Your task to perform on an android device: open app "Google Play Games" (install if not already installed) Image 0: 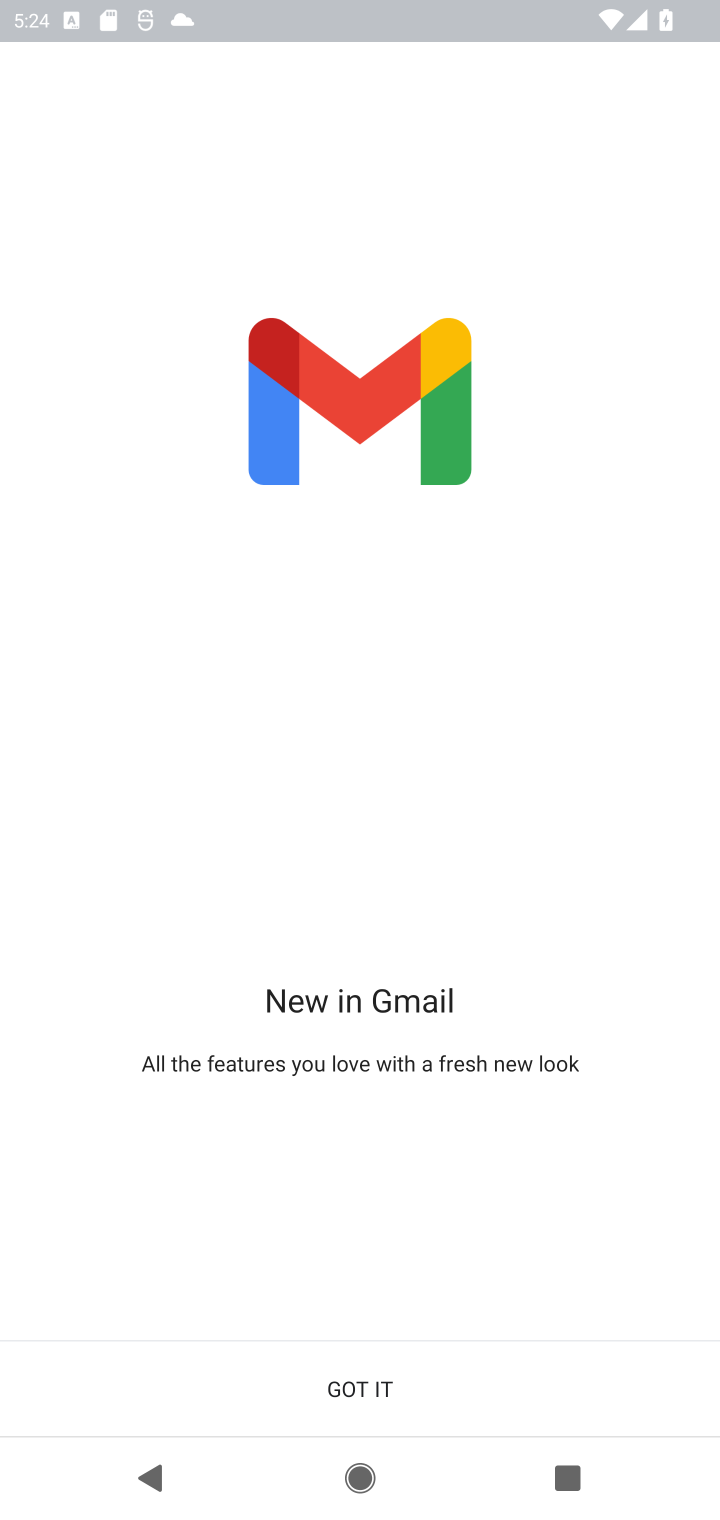
Step 0: press home button
Your task to perform on an android device: open app "Google Play Games" (install if not already installed) Image 1: 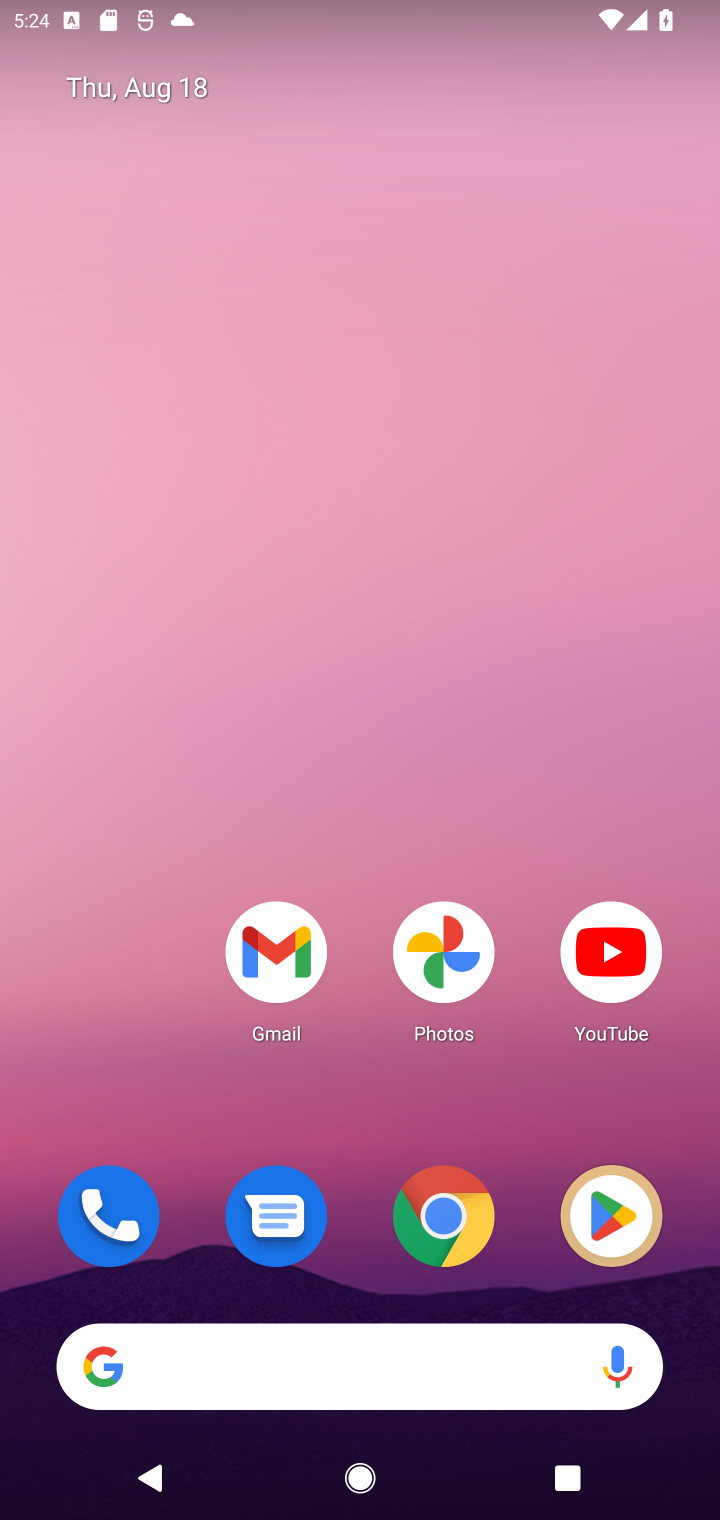
Step 1: click (576, 1182)
Your task to perform on an android device: open app "Google Play Games" (install if not already installed) Image 2: 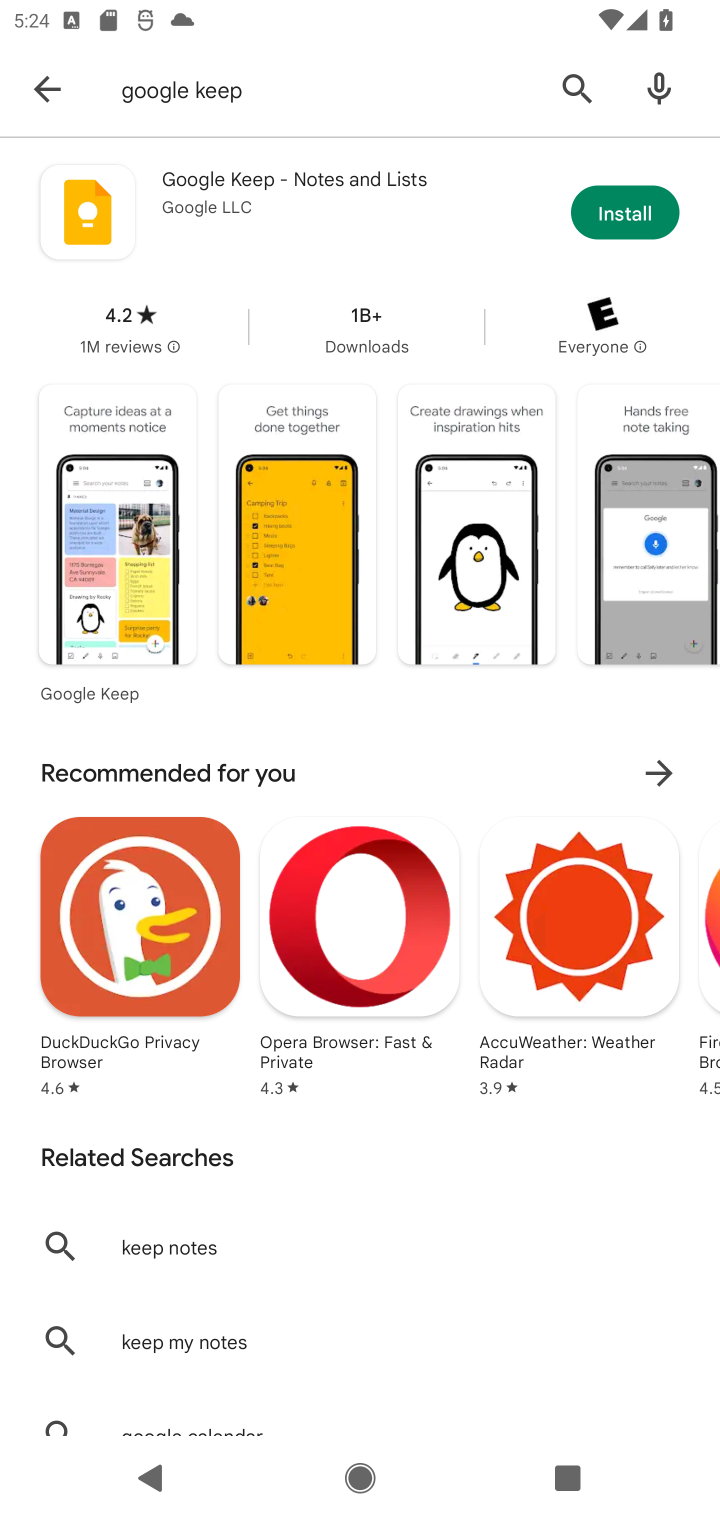
Step 2: click (561, 74)
Your task to perform on an android device: open app "Google Play Games" (install if not already installed) Image 3: 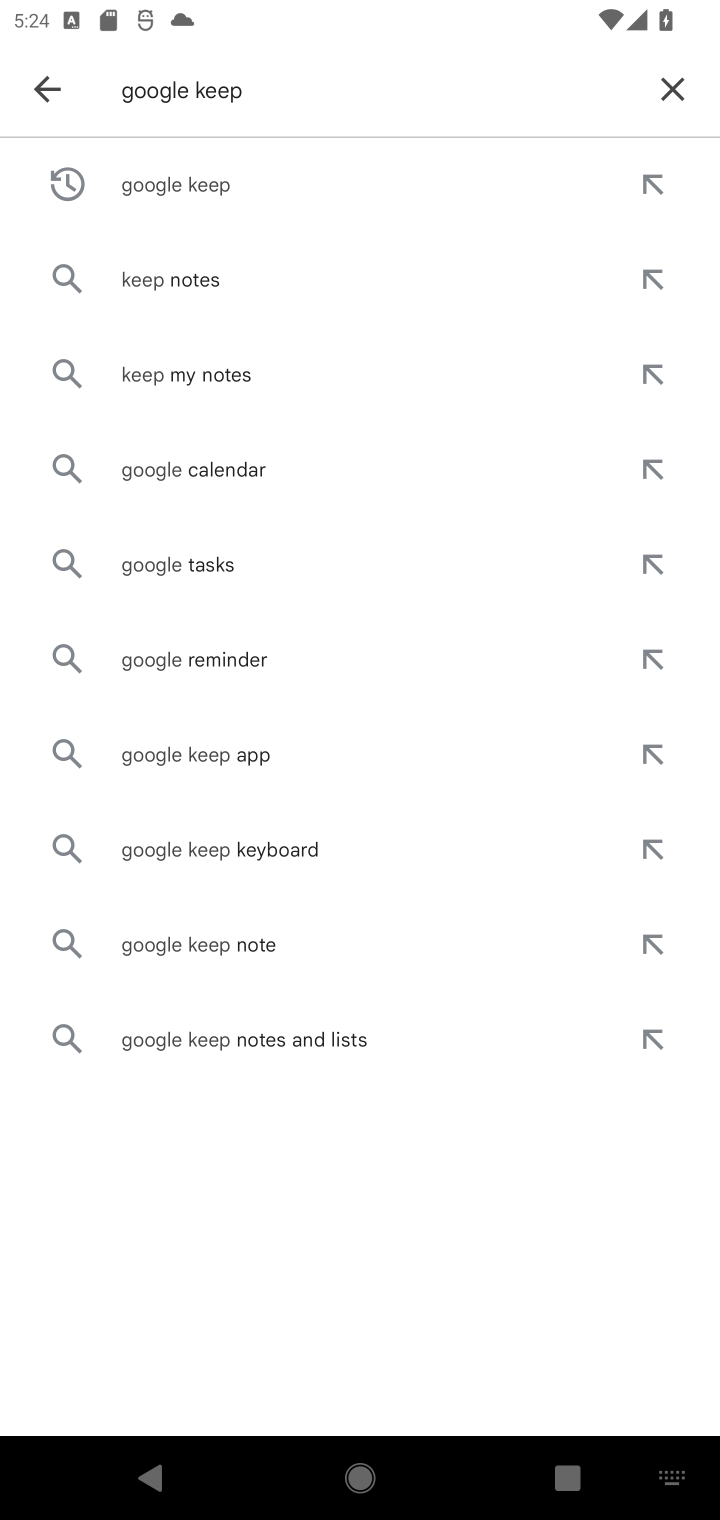
Step 3: click (651, 87)
Your task to perform on an android device: open app "Google Play Games" (install if not already installed) Image 4: 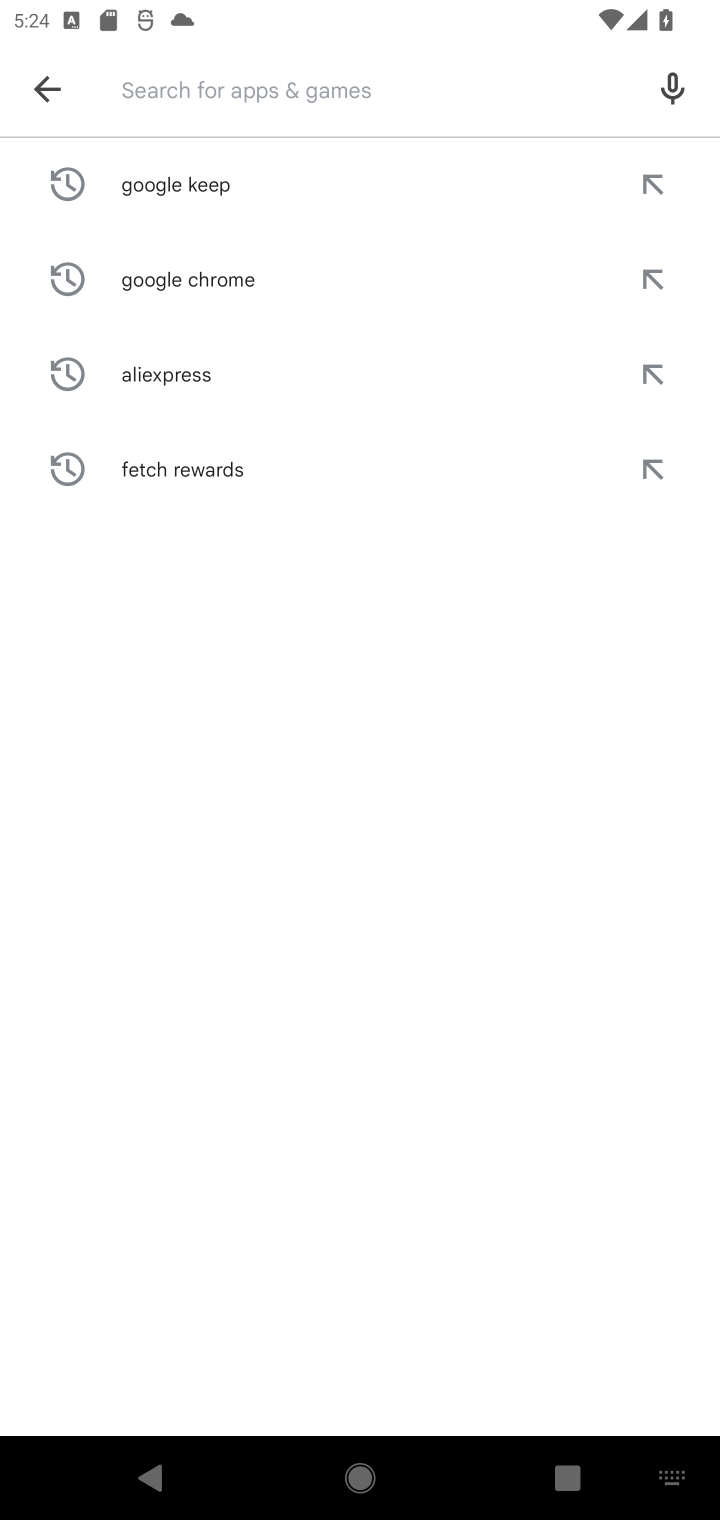
Step 4: type "Google Play Games"
Your task to perform on an android device: open app "Google Play Games" (install if not already installed) Image 5: 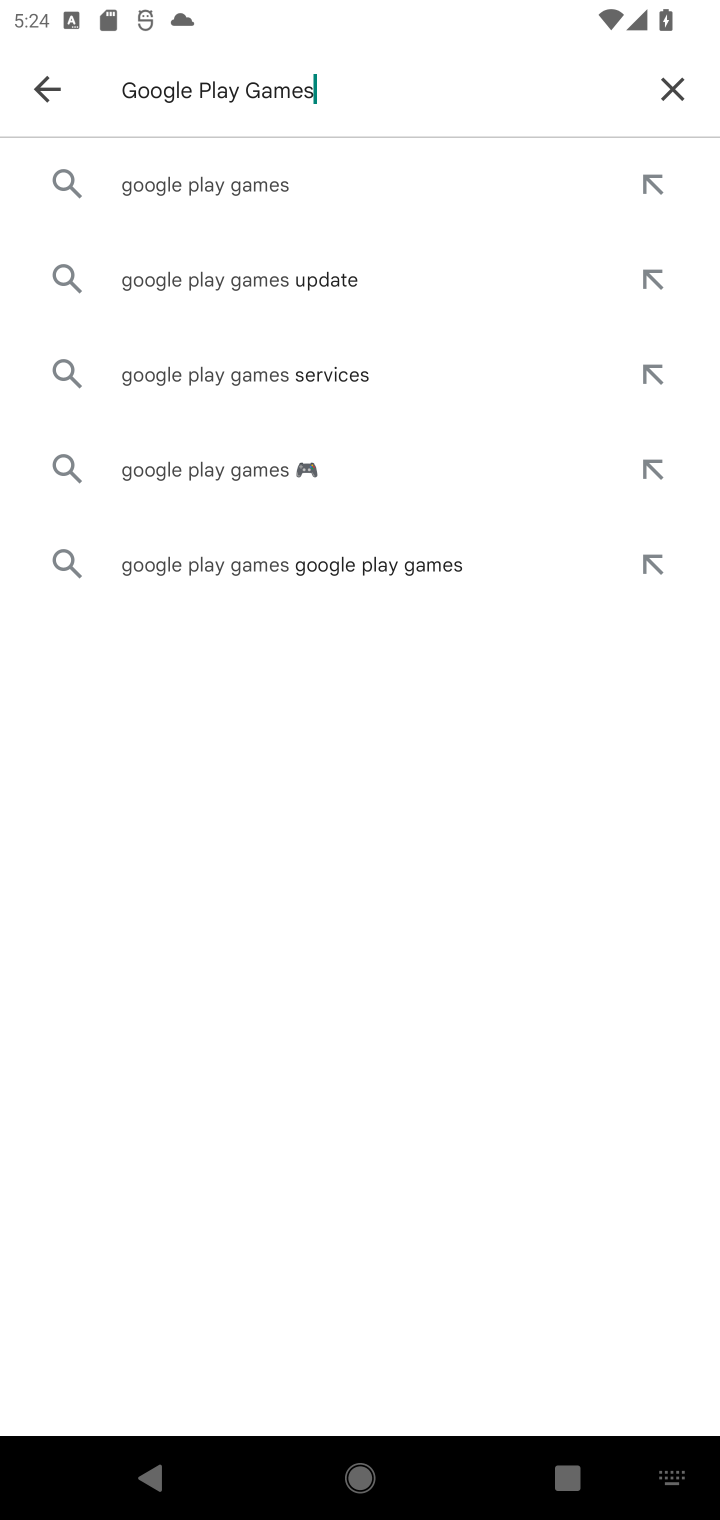
Step 5: click (298, 179)
Your task to perform on an android device: open app "Google Play Games" (install if not already installed) Image 6: 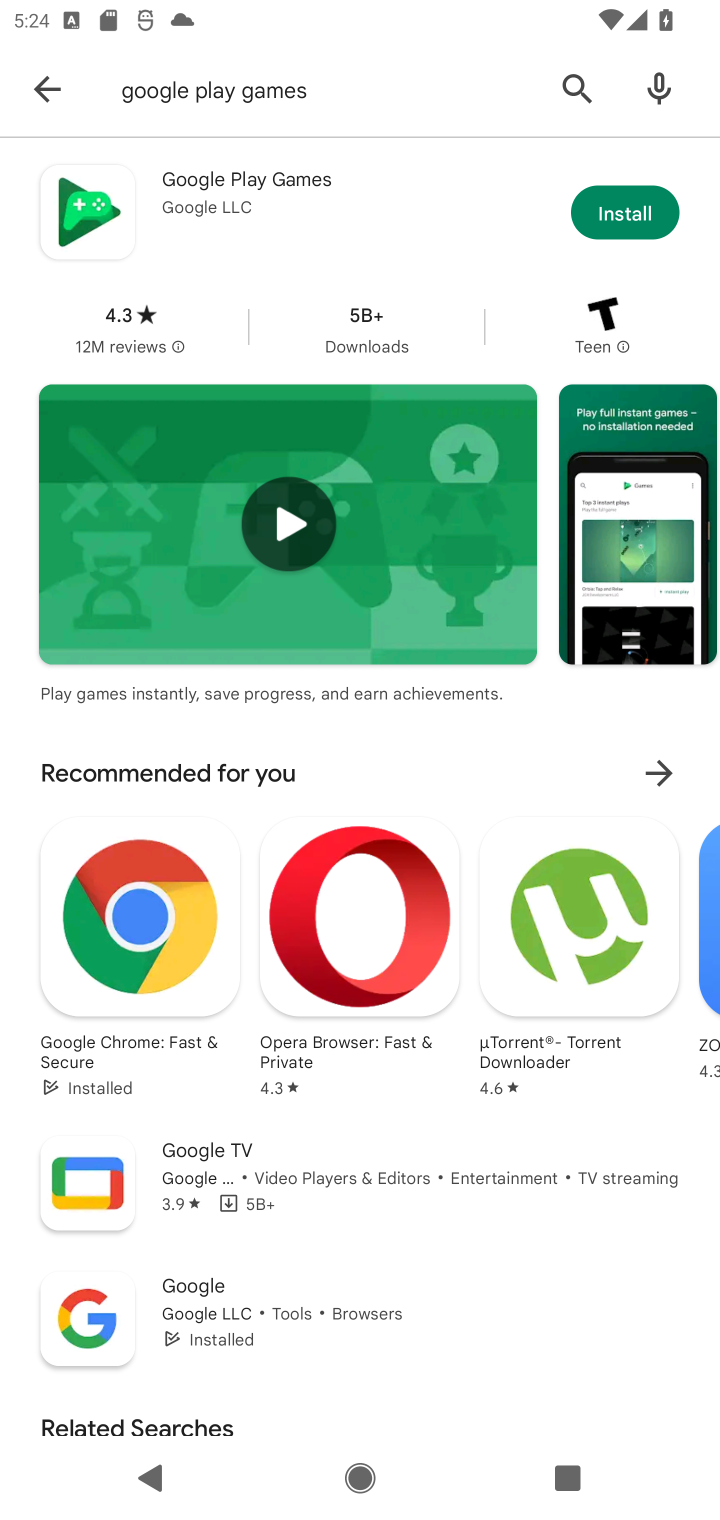
Step 6: click (620, 226)
Your task to perform on an android device: open app "Google Play Games" (install if not already installed) Image 7: 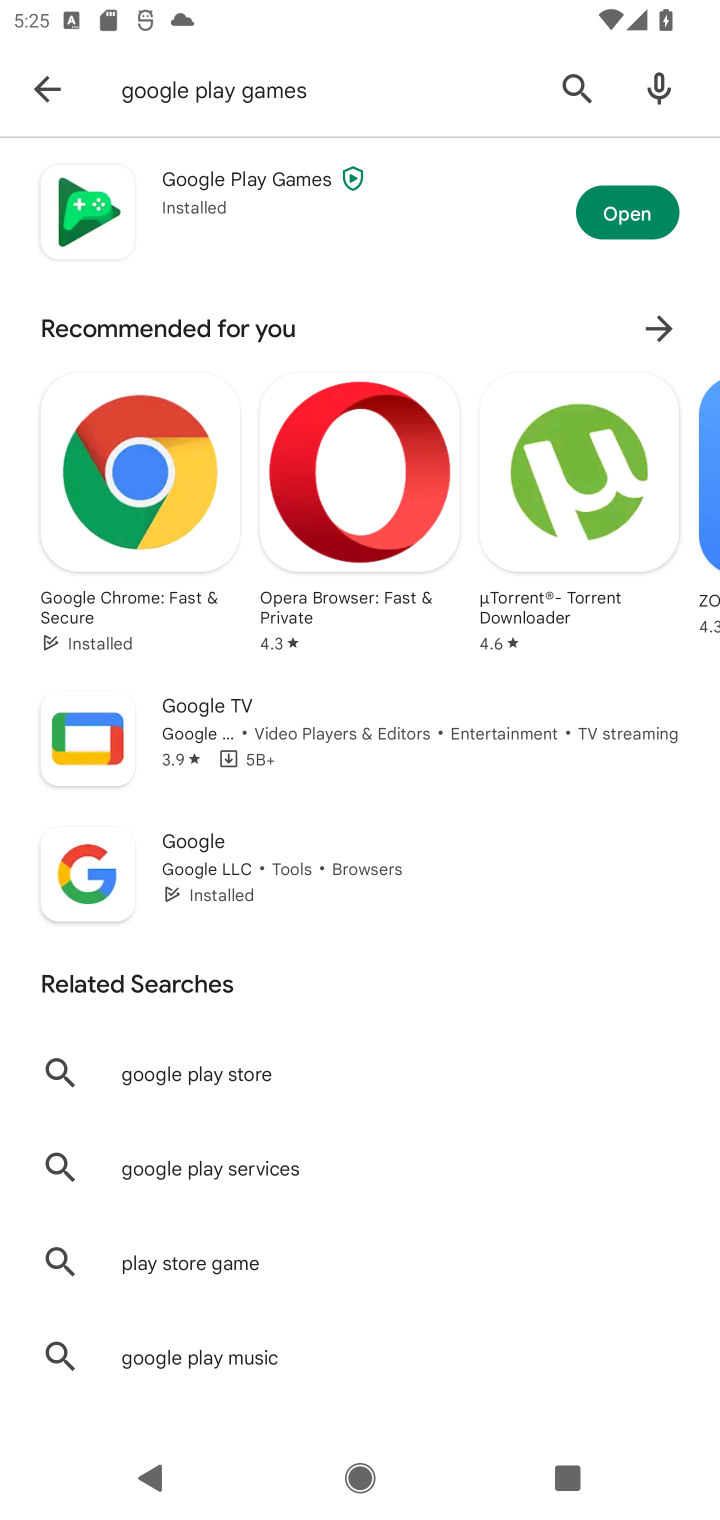
Step 7: click (620, 226)
Your task to perform on an android device: open app "Google Play Games" (install if not already installed) Image 8: 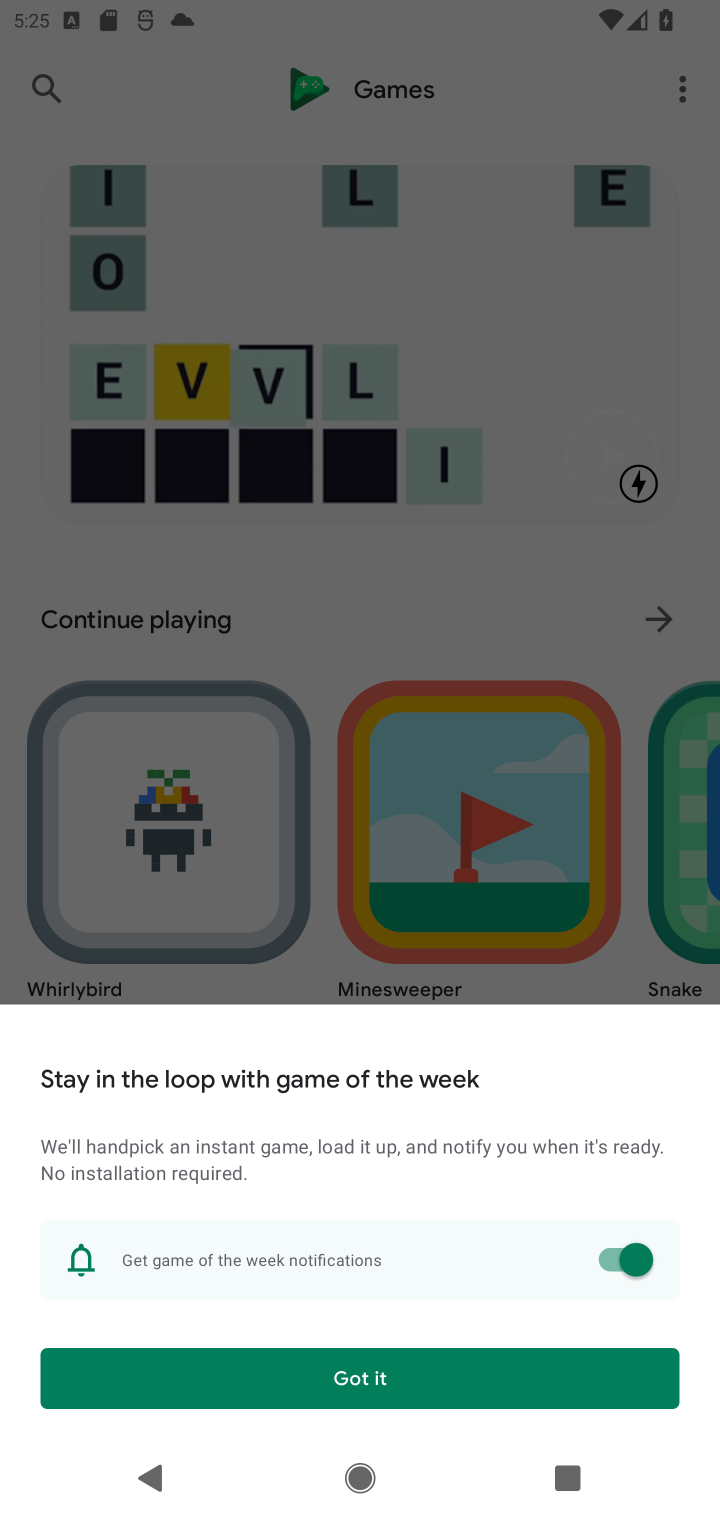
Step 8: task complete